Your task to perform on an android device: Open my contact list Image 0: 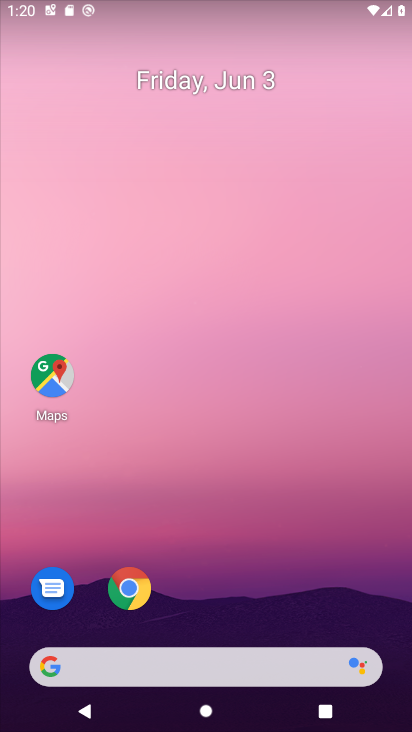
Step 0: drag from (296, 522) to (405, 244)
Your task to perform on an android device: Open my contact list Image 1: 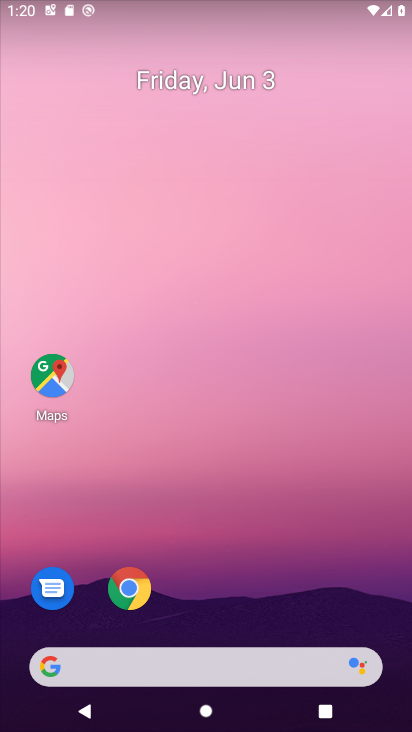
Step 1: drag from (209, 602) to (251, 26)
Your task to perform on an android device: Open my contact list Image 2: 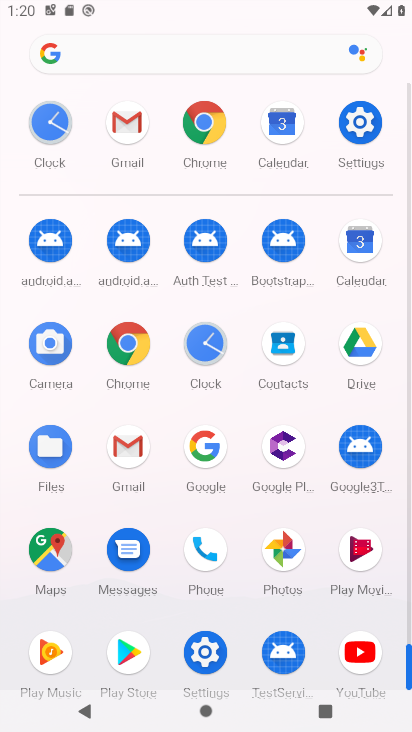
Step 2: click (302, 337)
Your task to perform on an android device: Open my contact list Image 3: 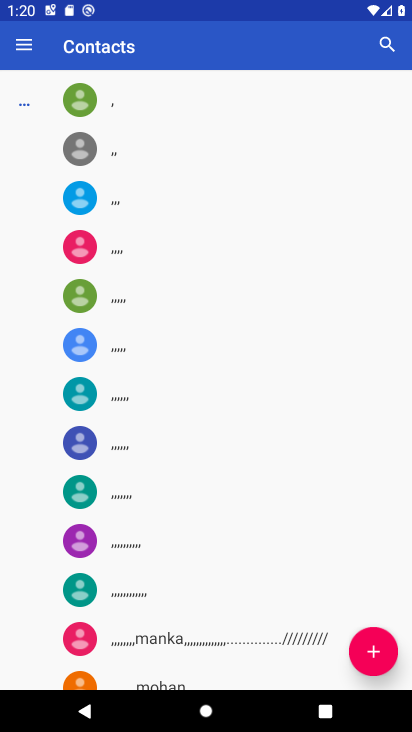
Step 3: task complete